Your task to perform on an android device: Set the phone to "Do not disturb". Image 0: 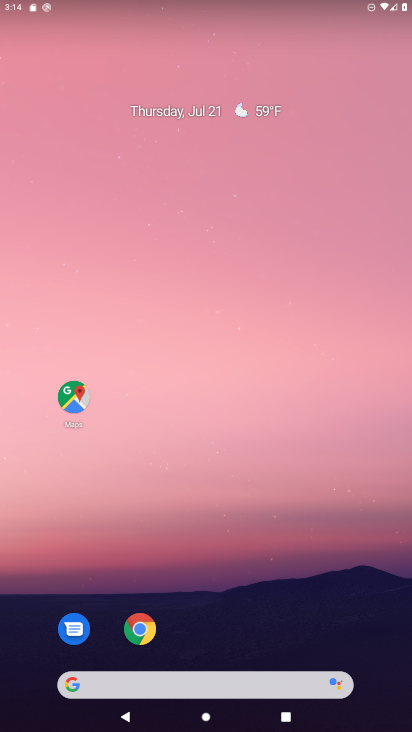
Step 0: drag from (227, 727) to (228, 167)
Your task to perform on an android device: Set the phone to "Do not disturb". Image 1: 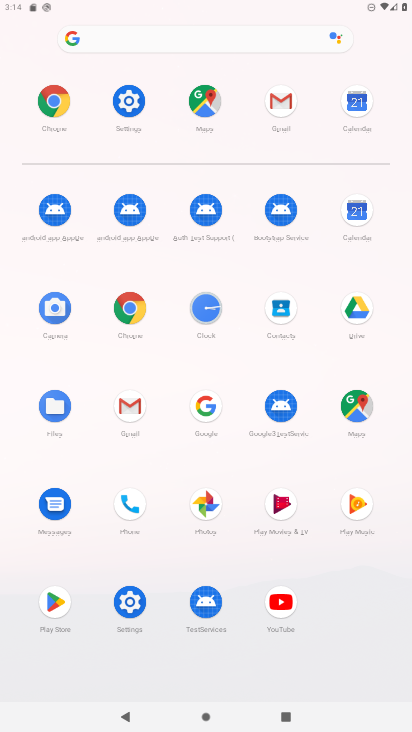
Step 1: click (129, 103)
Your task to perform on an android device: Set the phone to "Do not disturb". Image 2: 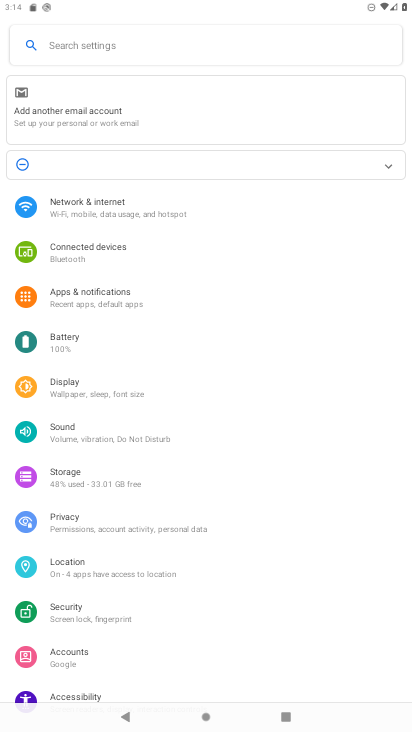
Step 2: click (85, 438)
Your task to perform on an android device: Set the phone to "Do not disturb". Image 3: 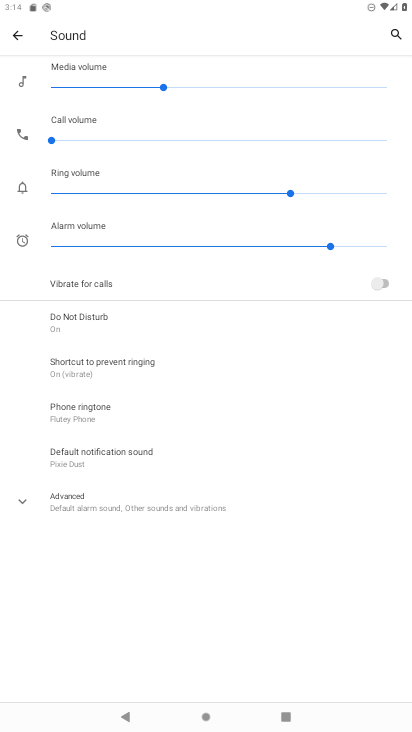
Step 3: click (73, 318)
Your task to perform on an android device: Set the phone to "Do not disturb". Image 4: 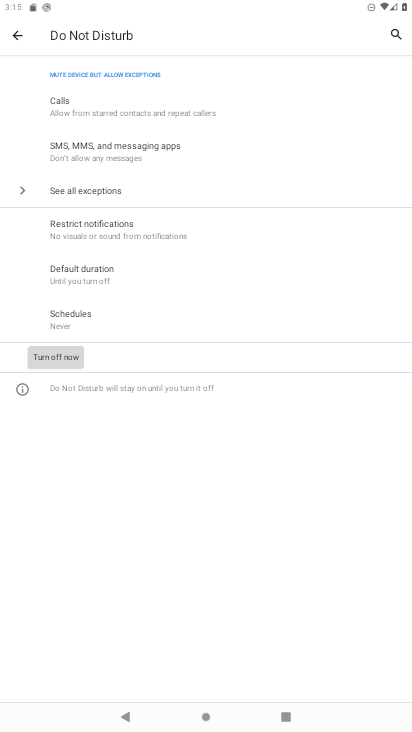
Step 4: task complete